Your task to perform on an android device: open wifi settings Image 0: 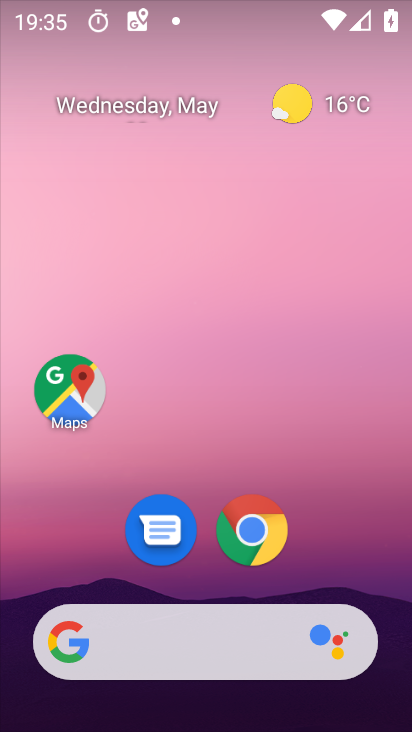
Step 0: drag from (224, 565) to (286, 263)
Your task to perform on an android device: open wifi settings Image 1: 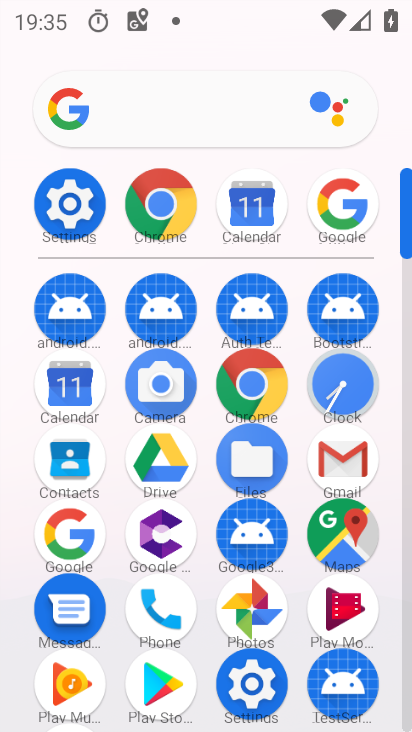
Step 1: click (250, 679)
Your task to perform on an android device: open wifi settings Image 2: 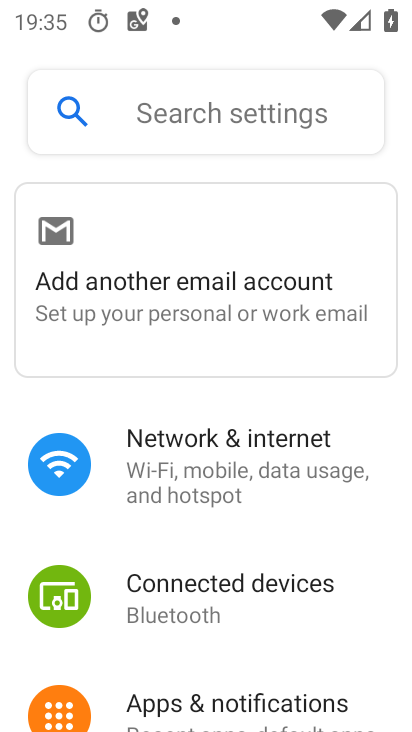
Step 2: click (176, 447)
Your task to perform on an android device: open wifi settings Image 3: 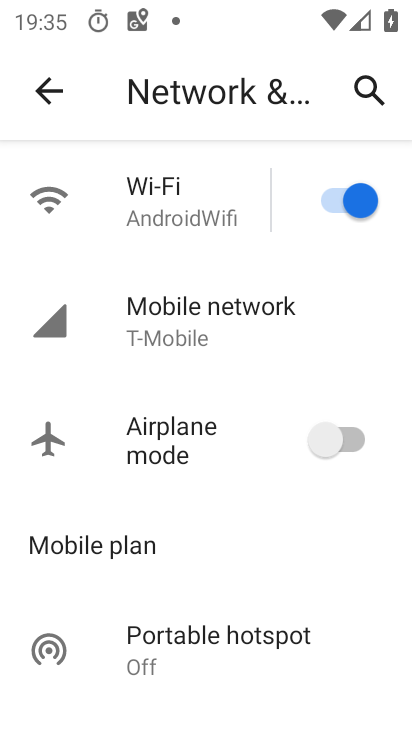
Step 3: click (188, 203)
Your task to perform on an android device: open wifi settings Image 4: 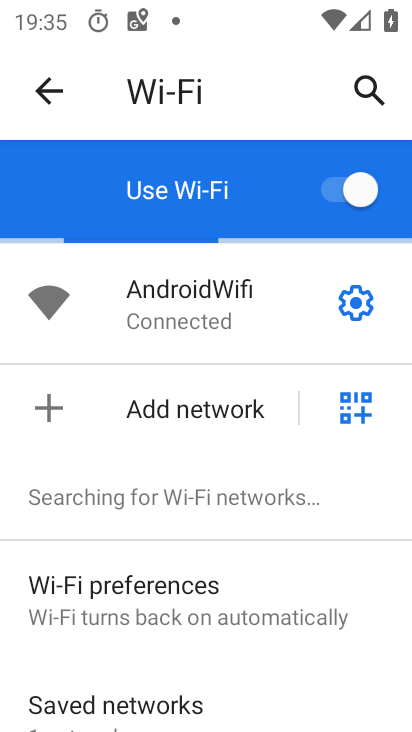
Step 4: task complete